Your task to perform on an android device: see tabs open on other devices in the chrome app Image 0: 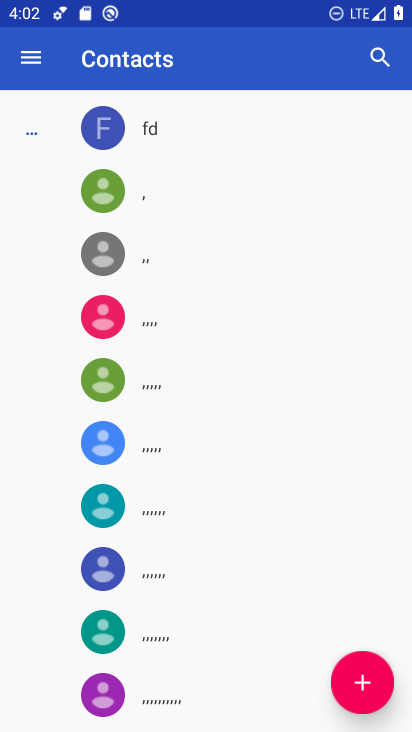
Step 0: press home button
Your task to perform on an android device: see tabs open on other devices in the chrome app Image 1: 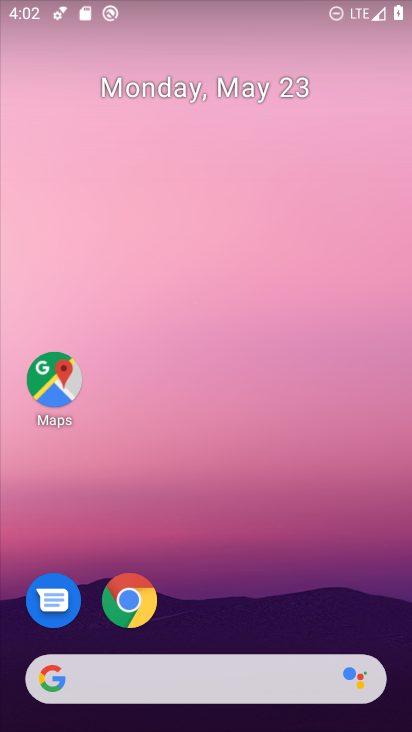
Step 1: click (135, 604)
Your task to perform on an android device: see tabs open on other devices in the chrome app Image 2: 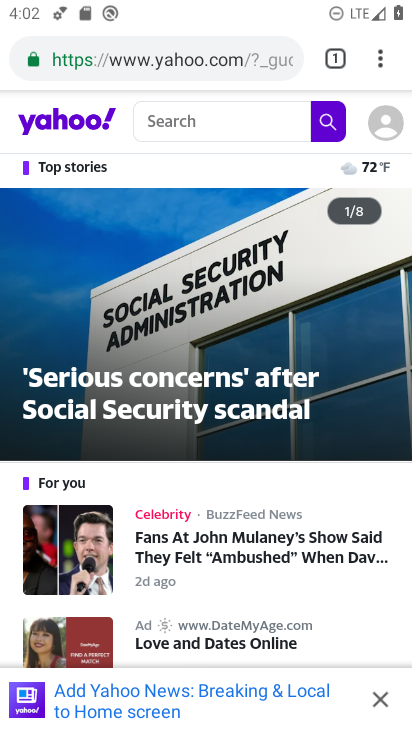
Step 2: click (379, 57)
Your task to perform on an android device: see tabs open on other devices in the chrome app Image 3: 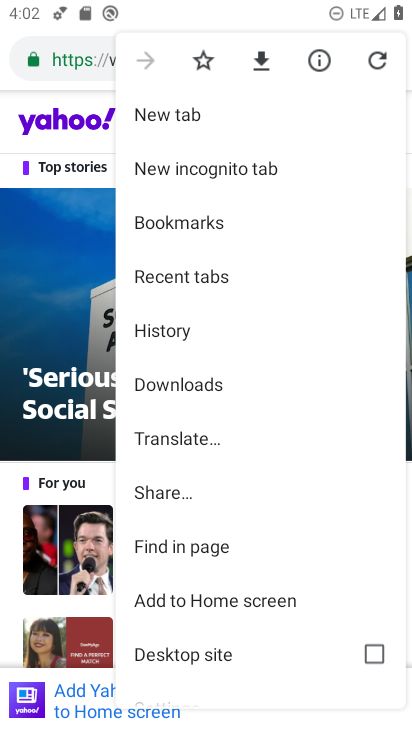
Step 3: click (177, 275)
Your task to perform on an android device: see tabs open on other devices in the chrome app Image 4: 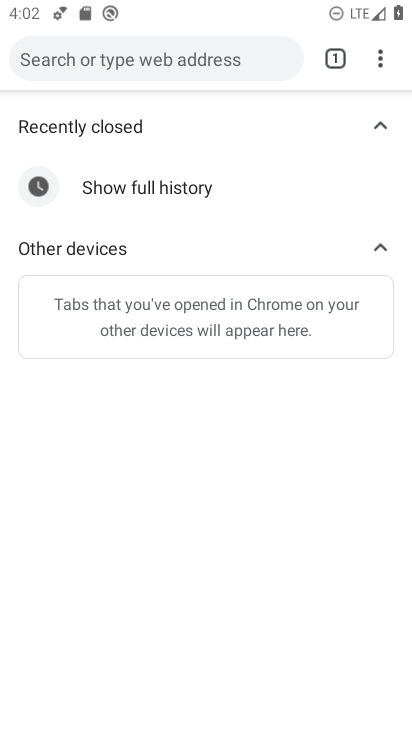
Step 4: task complete